Your task to perform on an android device: create a new album in the google photos Image 0: 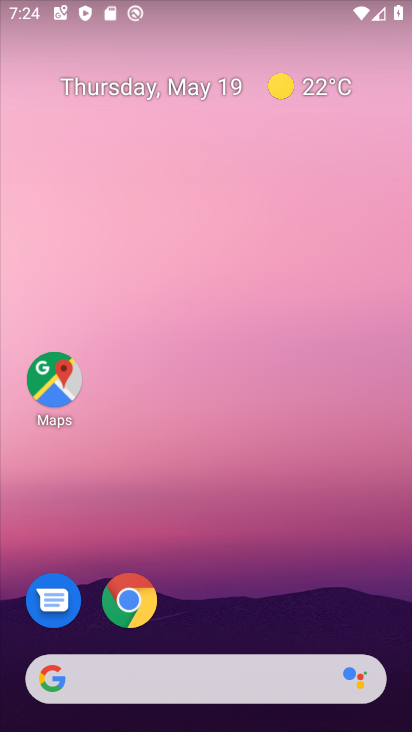
Step 0: drag from (329, 578) to (328, 177)
Your task to perform on an android device: create a new album in the google photos Image 1: 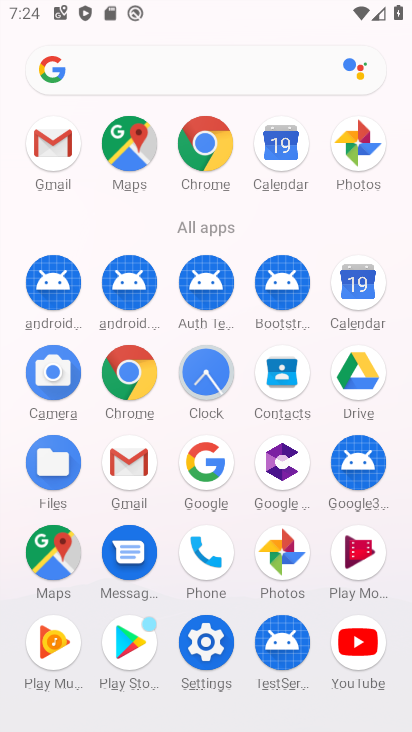
Step 1: click (286, 556)
Your task to perform on an android device: create a new album in the google photos Image 2: 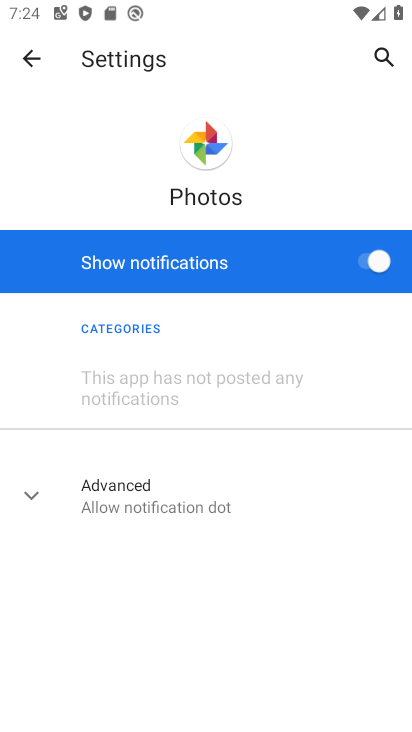
Step 2: click (24, 59)
Your task to perform on an android device: create a new album in the google photos Image 3: 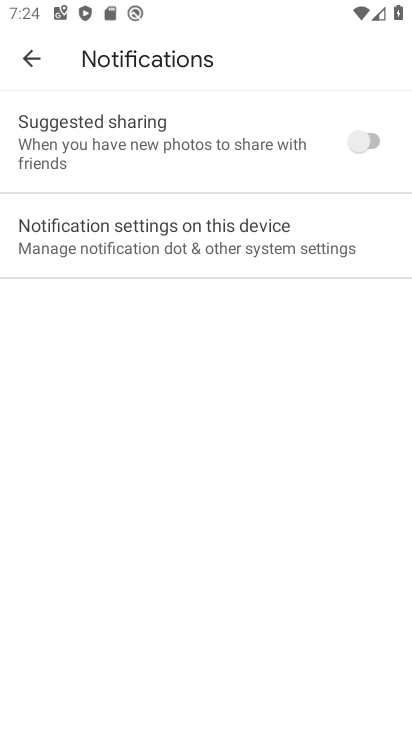
Step 3: click (24, 59)
Your task to perform on an android device: create a new album in the google photos Image 4: 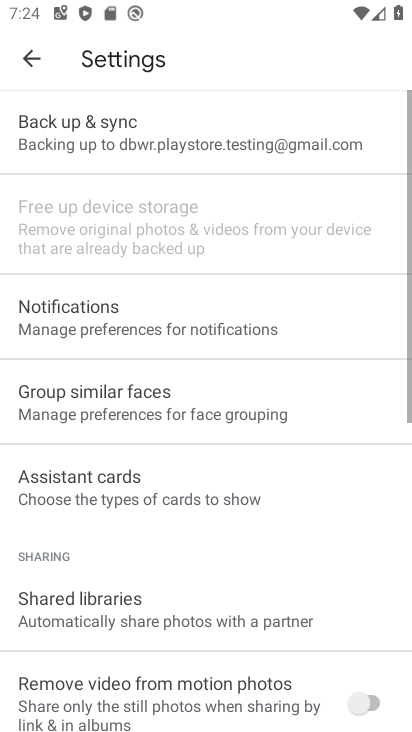
Step 4: click (24, 59)
Your task to perform on an android device: create a new album in the google photos Image 5: 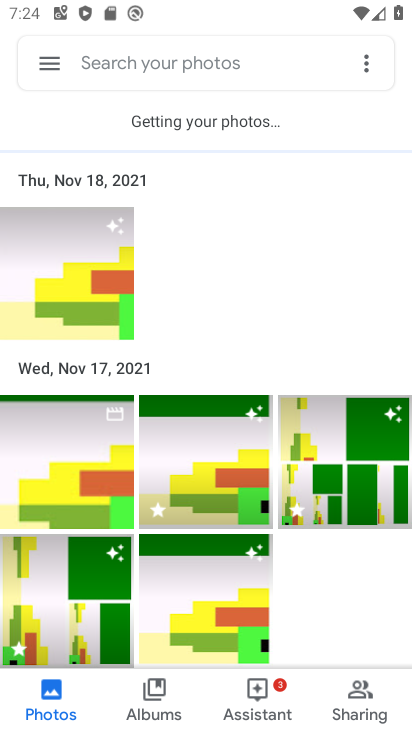
Step 5: click (166, 681)
Your task to perform on an android device: create a new album in the google photos Image 6: 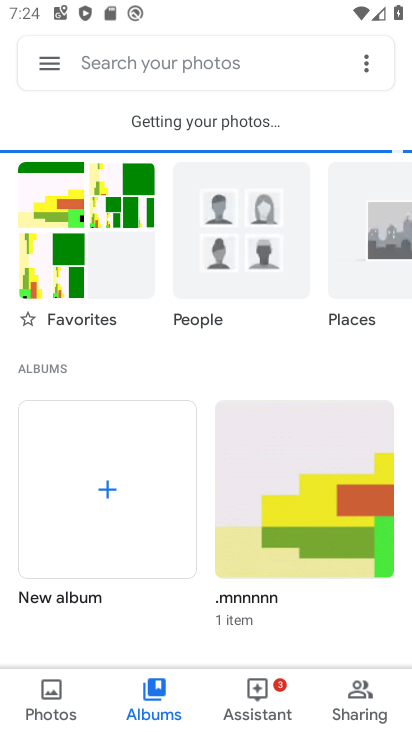
Step 6: click (113, 487)
Your task to perform on an android device: create a new album in the google photos Image 7: 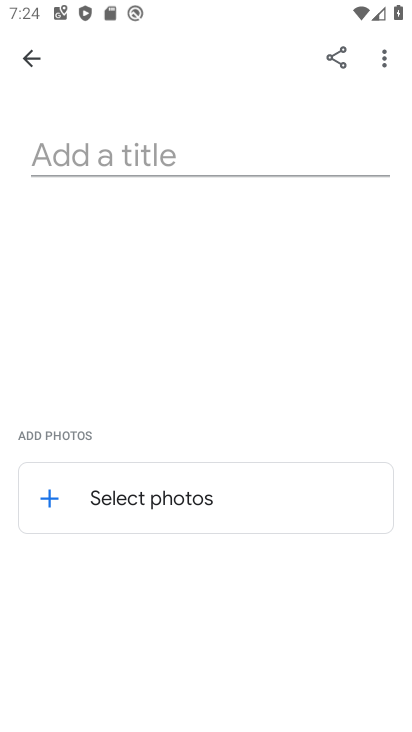
Step 7: click (126, 148)
Your task to perform on an android device: create a new album in the google photos Image 8: 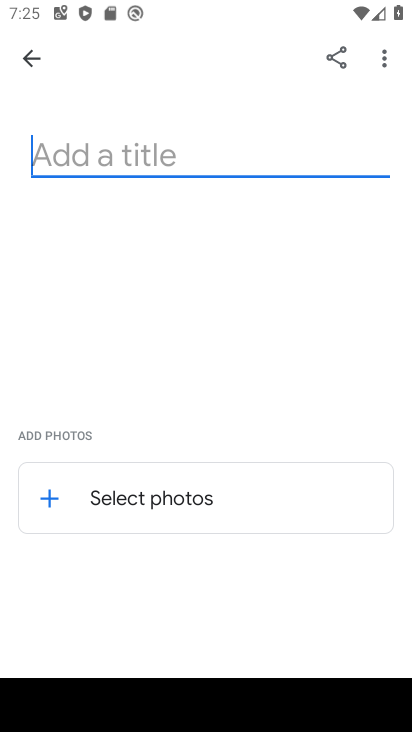
Step 8: type "ue"
Your task to perform on an android device: create a new album in the google photos Image 9: 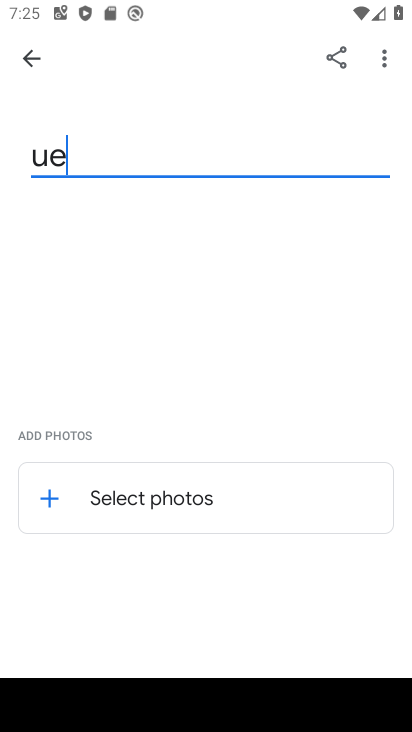
Step 9: click (47, 496)
Your task to perform on an android device: create a new album in the google photos Image 10: 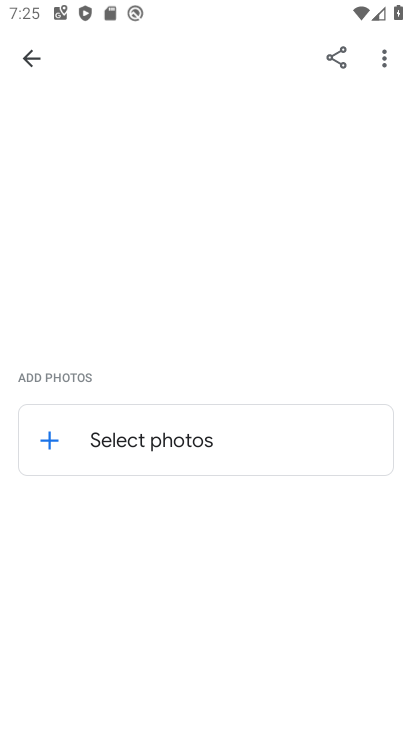
Step 10: click (54, 437)
Your task to perform on an android device: create a new album in the google photos Image 11: 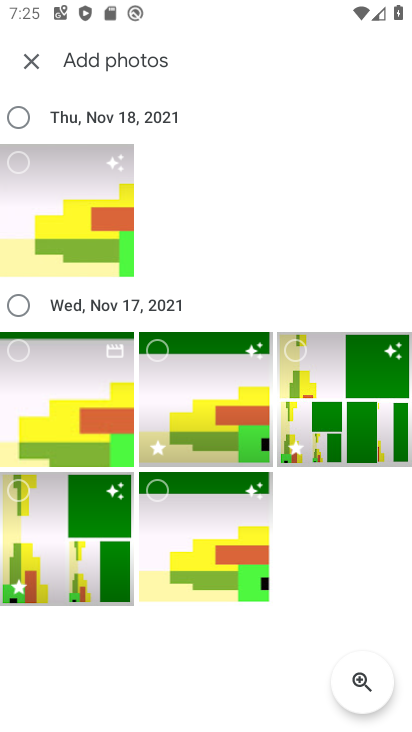
Step 11: click (20, 110)
Your task to perform on an android device: create a new album in the google photos Image 12: 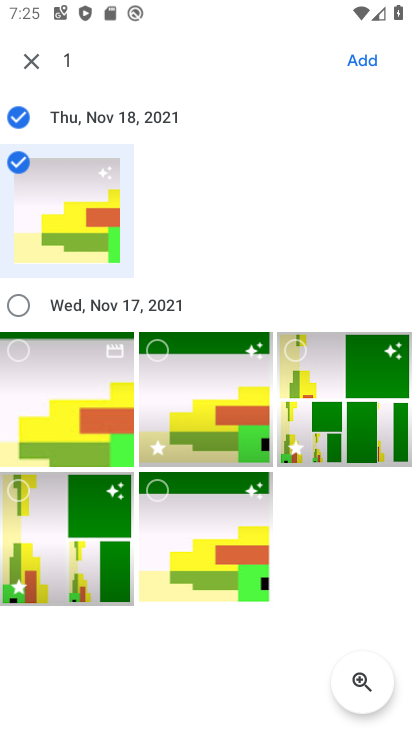
Step 12: click (375, 56)
Your task to perform on an android device: create a new album in the google photos Image 13: 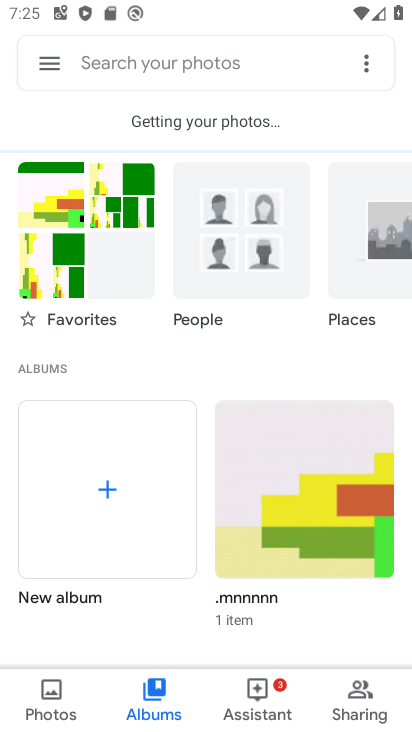
Step 13: click (111, 503)
Your task to perform on an android device: create a new album in the google photos Image 14: 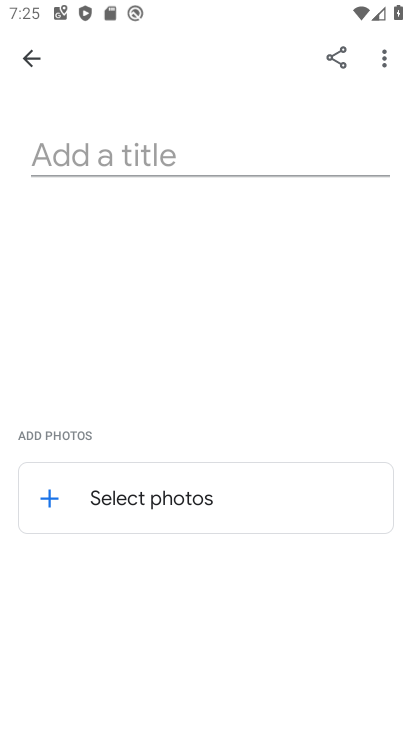
Step 14: click (171, 142)
Your task to perform on an android device: create a new album in the google photos Image 15: 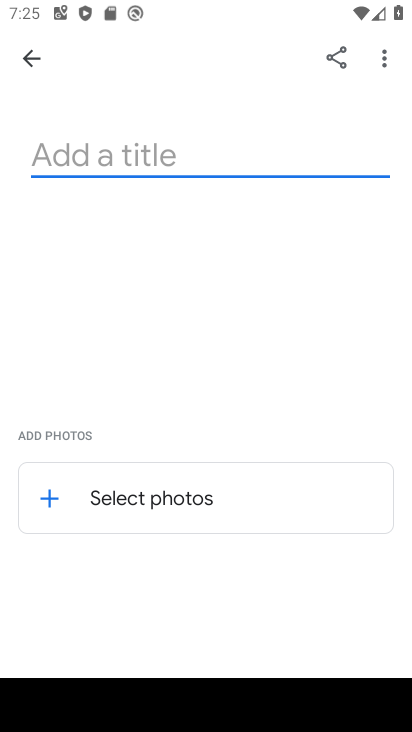
Step 15: type "uu"
Your task to perform on an android device: create a new album in the google photos Image 16: 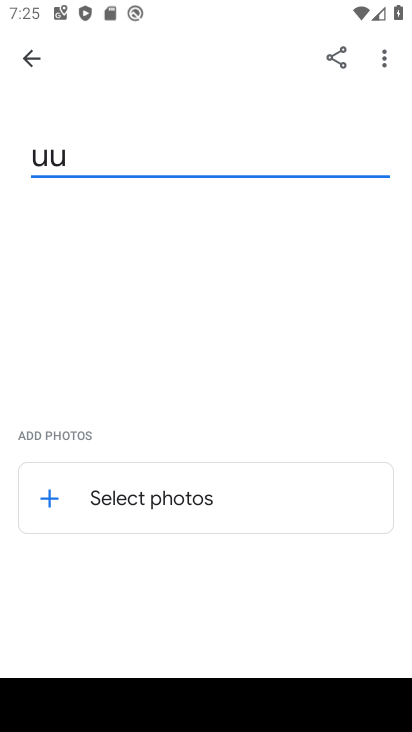
Step 16: click (45, 493)
Your task to perform on an android device: create a new album in the google photos Image 17: 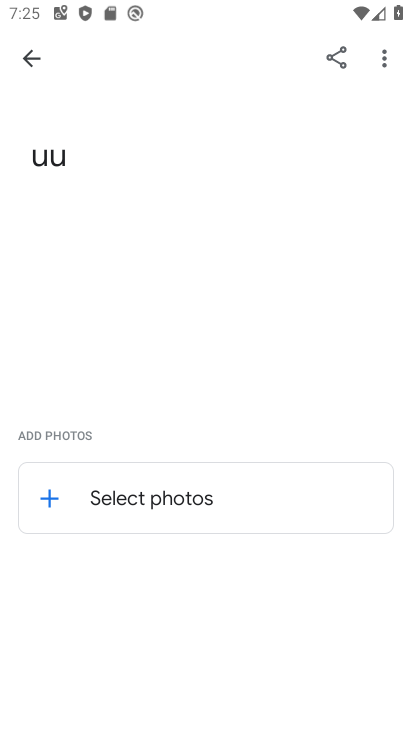
Step 17: click (49, 503)
Your task to perform on an android device: create a new album in the google photos Image 18: 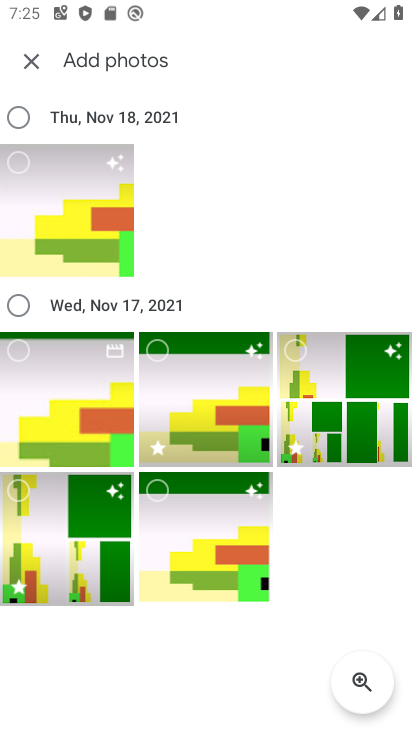
Step 18: click (15, 159)
Your task to perform on an android device: create a new album in the google photos Image 19: 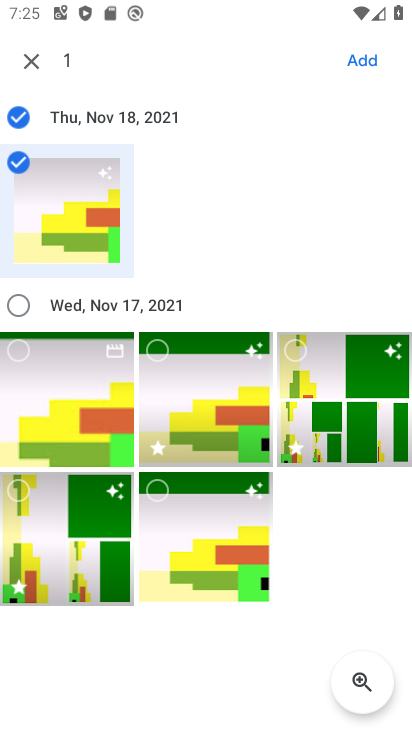
Step 19: click (353, 63)
Your task to perform on an android device: create a new album in the google photos Image 20: 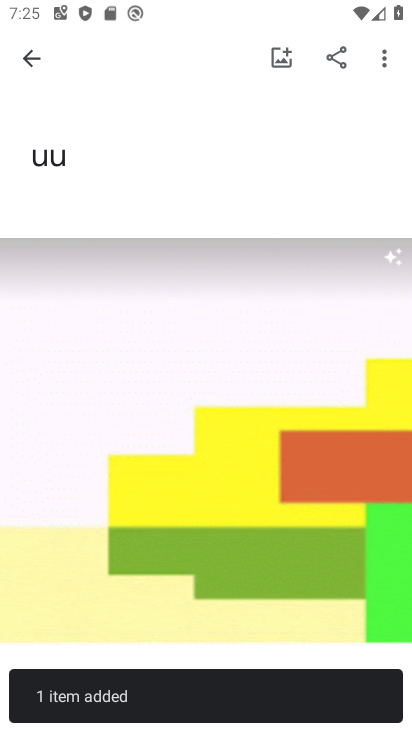
Step 20: task complete